Your task to perform on an android device: visit the assistant section in the google photos Image 0: 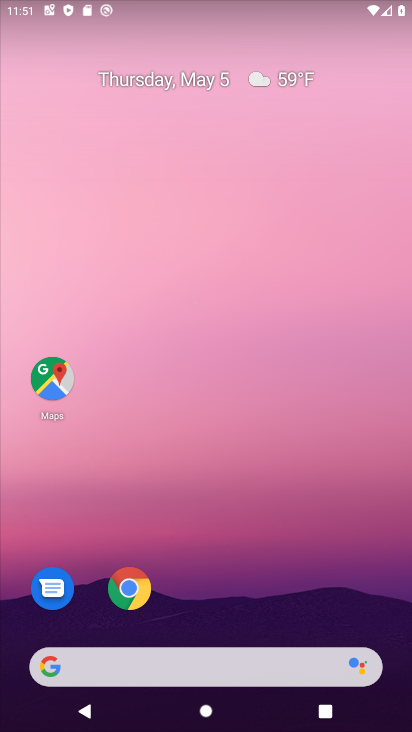
Step 0: drag from (279, 448) to (308, 1)
Your task to perform on an android device: visit the assistant section in the google photos Image 1: 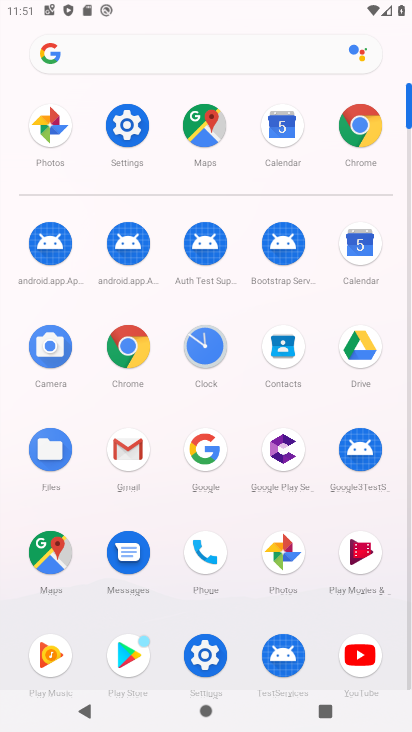
Step 1: click (285, 555)
Your task to perform on an android device: visit the assistant section in the google photos Image 2: 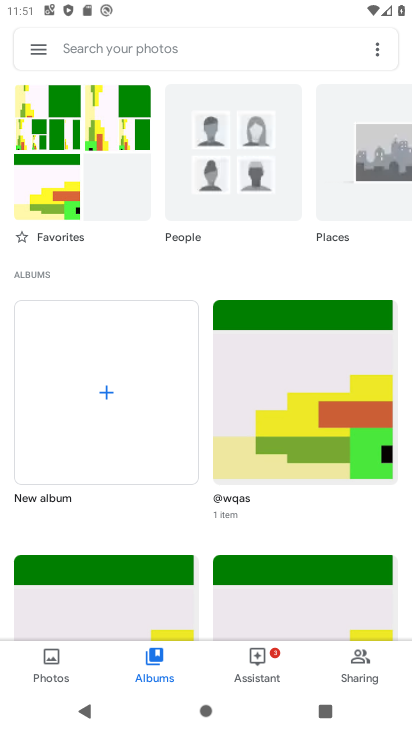
Step 2: click (254, 673)
Your task to perform on an android device: visit the assistant section in the google photos Image 3: 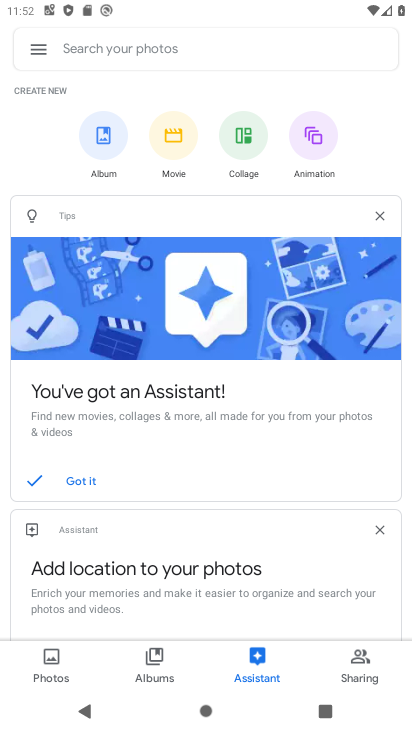
Step 3: task complete